Your task to perform on an android device: check storage Image 0: 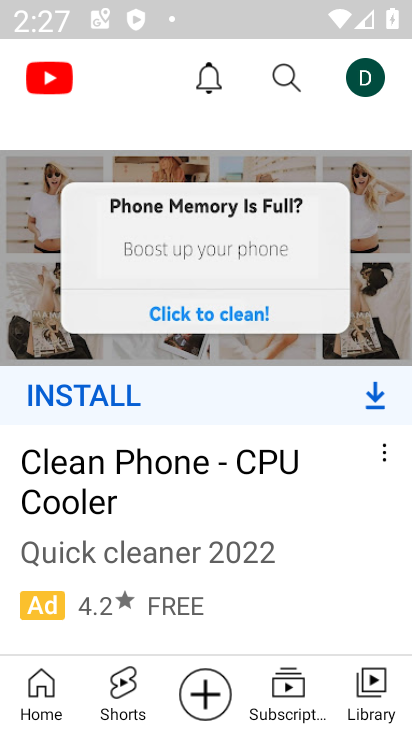
Step 0: press back button
Your task to perform on an android device: check storage Image 1: 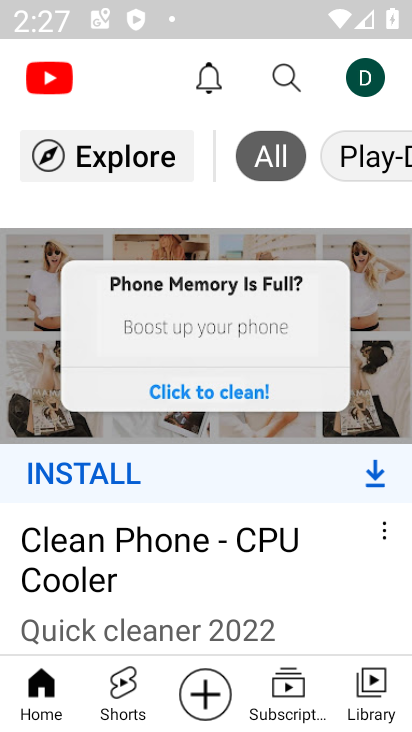
Step 1: press back button
Your task to perform on an android device: check storage Image 2: 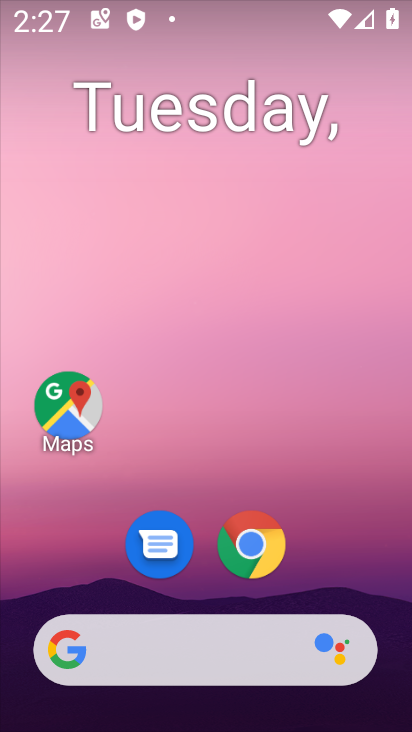
Step 2: drag from (346, 565) to (273, 42)
Your task to perform on an android device: check storage Image 3: 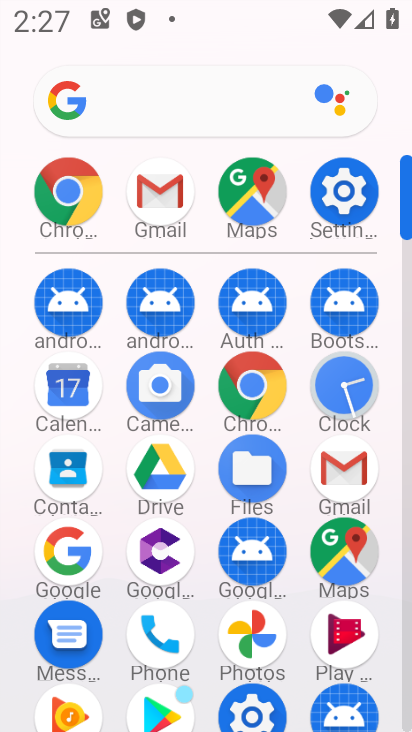
Step 3: click (345, 186)
Your task to perform on an android device: check storage Image 4: 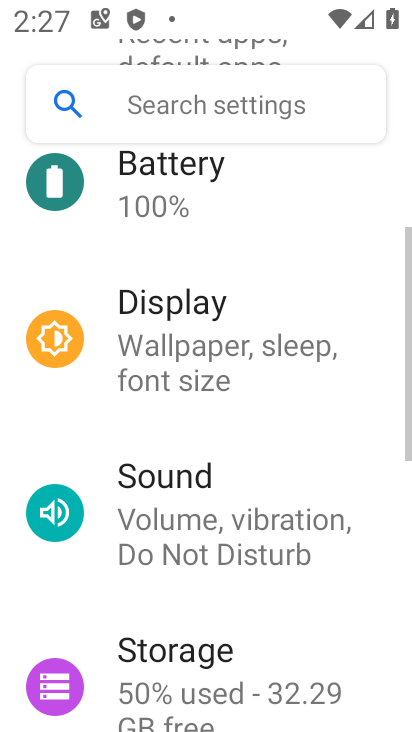
Step 4: drag from (268, 589) to (284, 114)
Your task to perform on an android device: check storage Image 5: 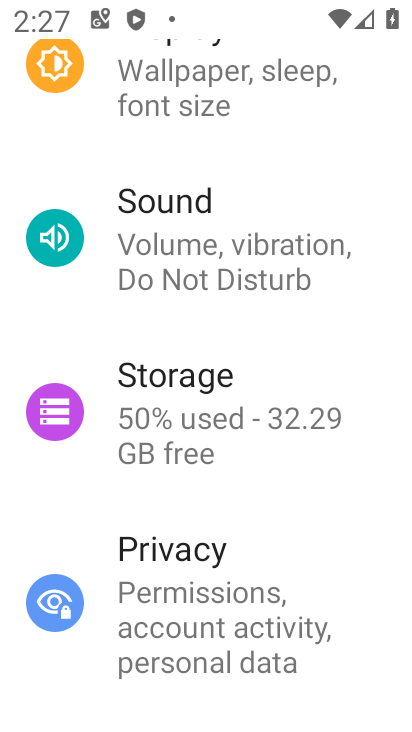
Step 5: click (195, 390)
Your task to perform on an android device: check storage Image 6: 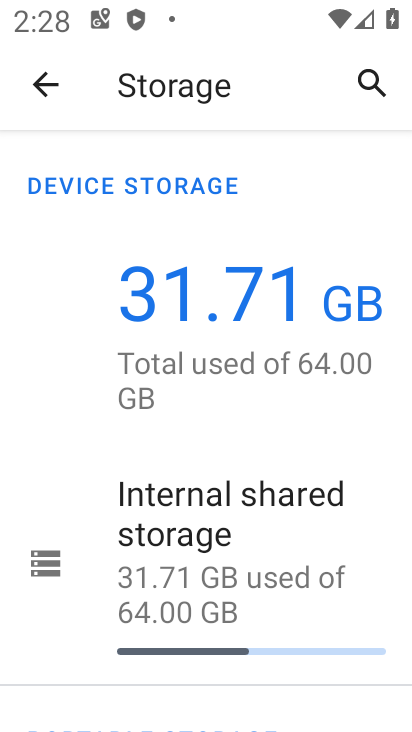
Step 6: task complete